Your task to perform on an android device: open chrome privacy settings Image 0: 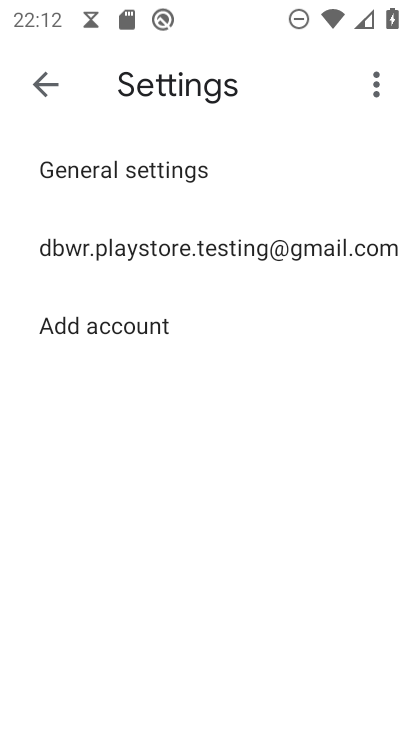
Step 0: press home button
Your task to perform on an android device: open chrome privacy settings Image 1: 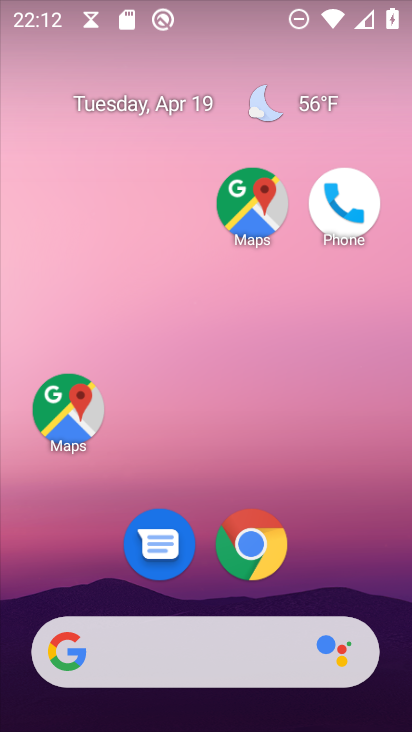
Step 1: drag from (220, 436) to (288, 105)
Your task to perform on an android device: open chrome privacy settings Image 2: 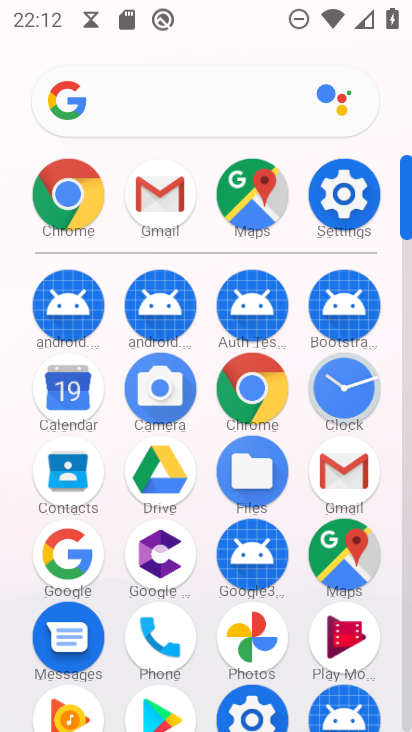
Step 2: click (75, 200)
Your task to perform on an android device: open chrome privacy settings Image 3: 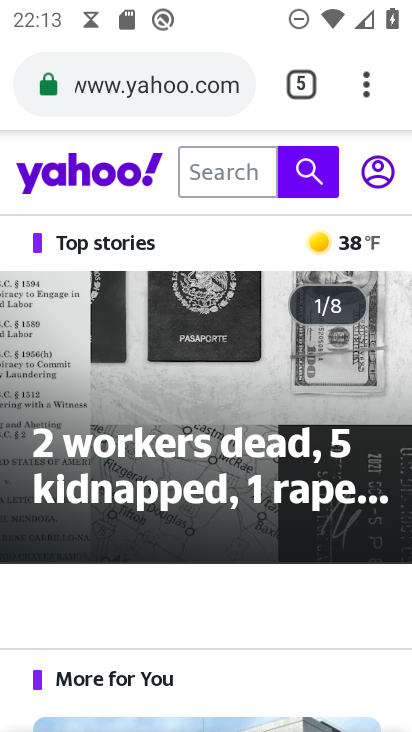
Step 3: click (367, 90)
Your task to perform on an android device: open chrome privacy settings Image 4: 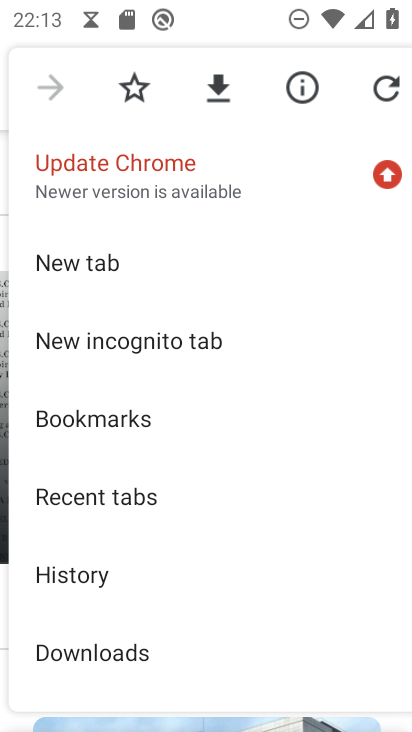
Step 4: drag from (168, 611) to (307, 174)
Your task to perform on an android device: open chrome privacy settings Image 5: 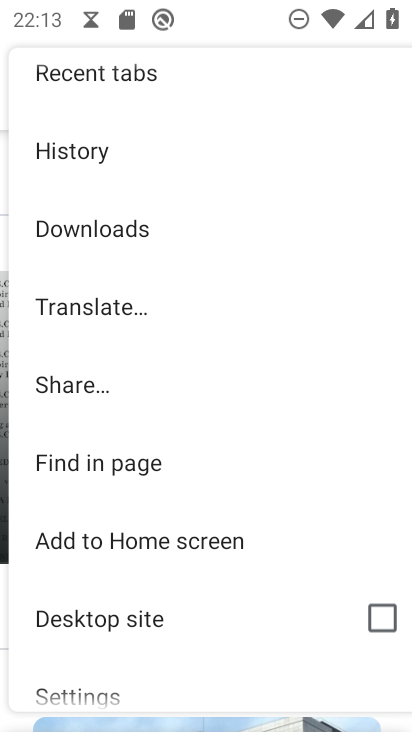
Step 5: drag from (201, 601) to (296, 144)
Your task to perform on an android device: open chrome privacy settings Image 6: 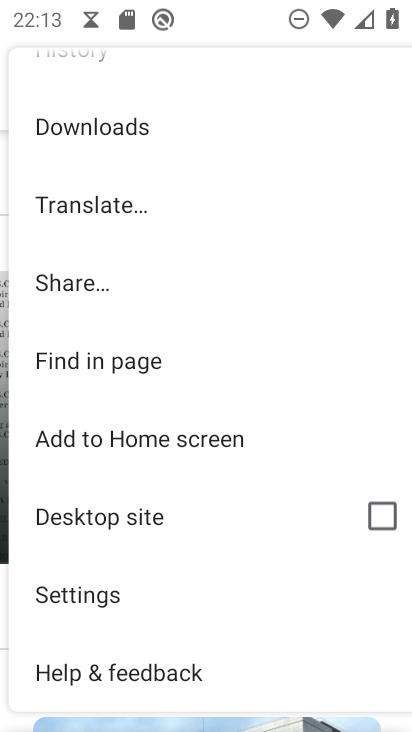
Step 6: click (96, 592)
Your task to perform on an android device: open chrome privacy settings Image 7: 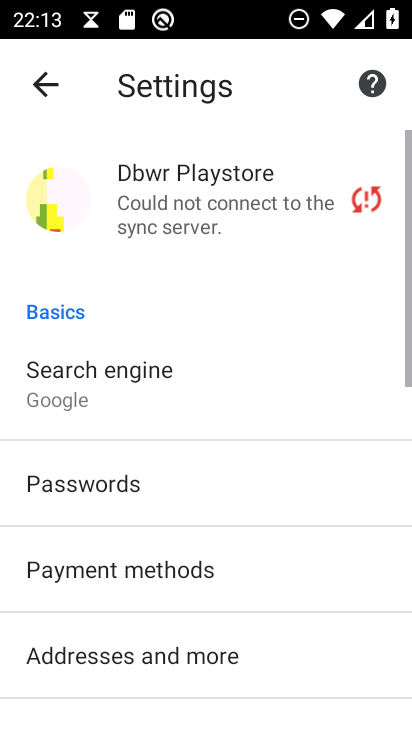
Step 7: drag from (160, 620) to (308, 190)
Your task to perform on an android device: open chrome privacy settings Image 8: 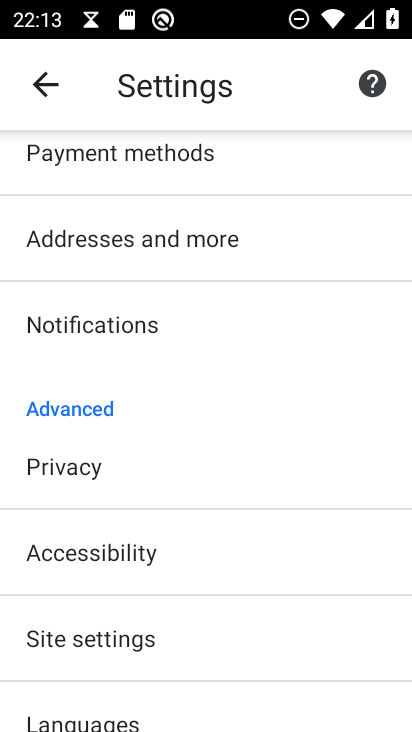
Step 8: click (46, 464)
Your task to perform on an android device: open chrome privacy settings Image 9: 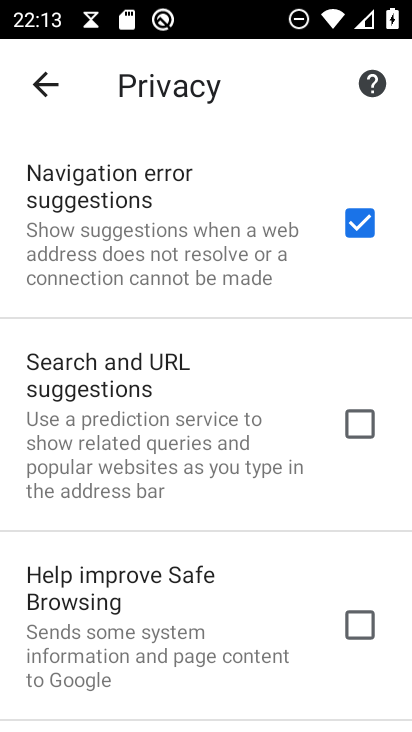
Step 9: task complete